Your task to perform on an android device: turn off priority inbox in the gmail app Image 0: 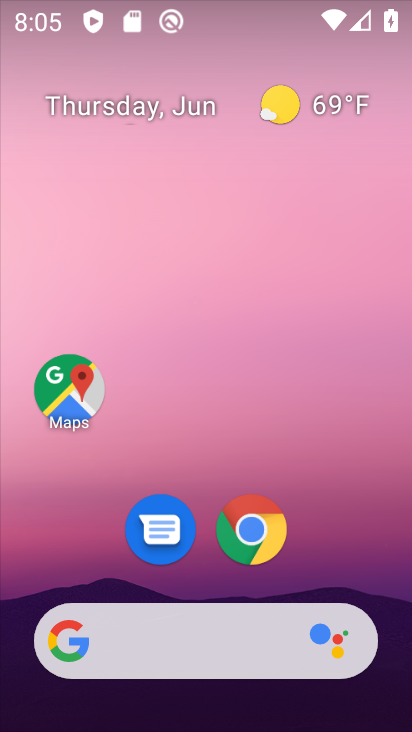
Step 0: drag from (219, 589) to (170, 76)
Your task to perform on an android device: turn off priority inbox in the gmail app Image 1: 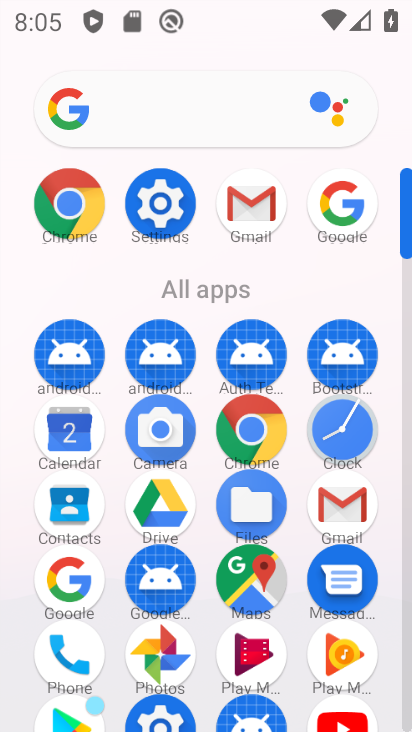
Step 1: click (349, 490)
Your task to perform on an android device: turn off priority inbox in the gmail app Image 2: 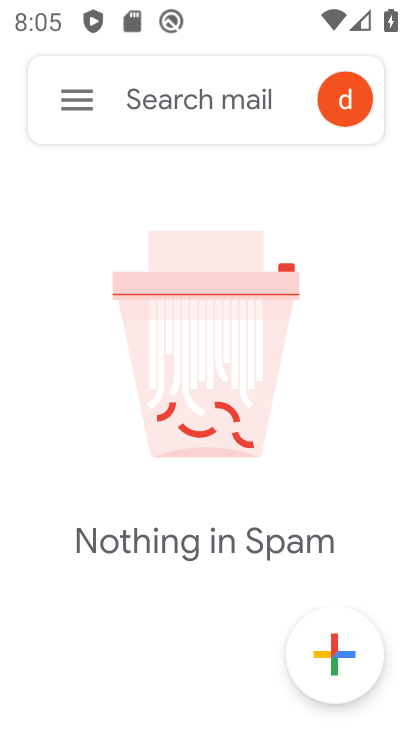
Step 2: click (74, 90)
Your task to perform on an android device: turn off priority inbox in the gmail app Image 3: 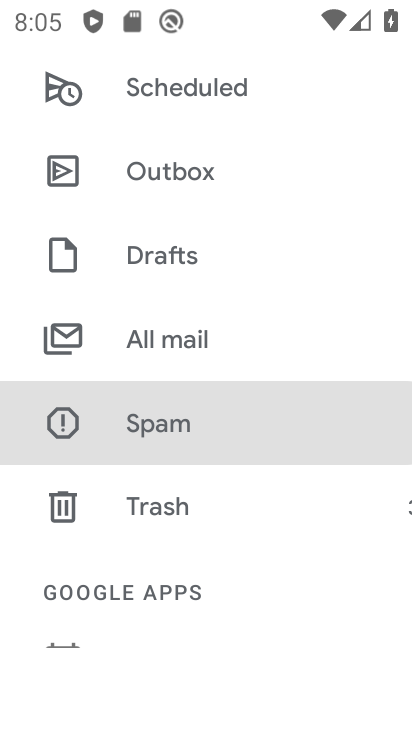
Step 3: drag from (134, 581) to (129, 8)
Your task to perform on an android device: turn off priority inbox in the gmail app Image 4: 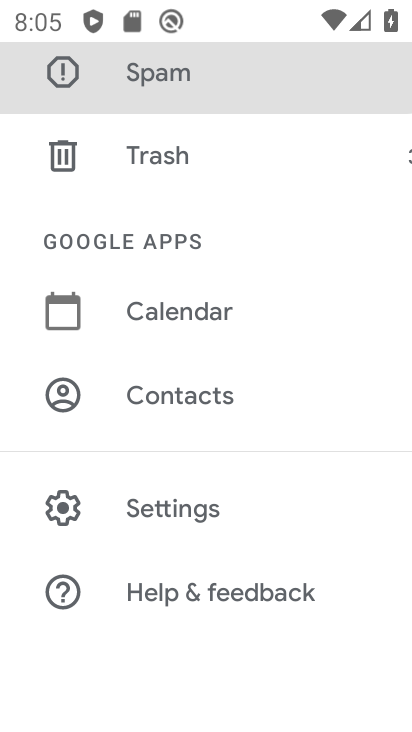
Step 4: click (144, 497)
Your task to perform on an android device: turn off priority inbox in the gmail app Image 5: 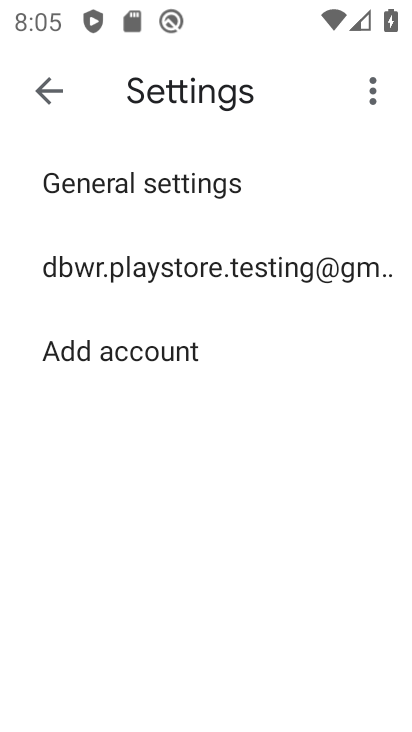
Step 5: click (168, 262)
Your task to perform on an android device: turn off priority inbox in the gmail app Image 6: 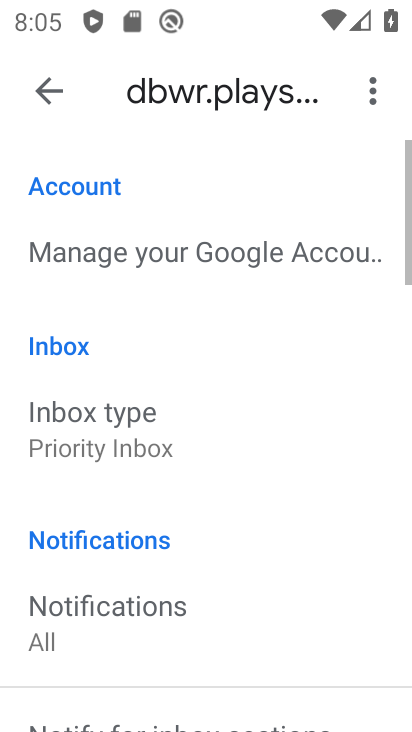
Step 6: click (166, 441)
Your task to perform on an android device: turn off priority inbox in the gmail app Image 7: 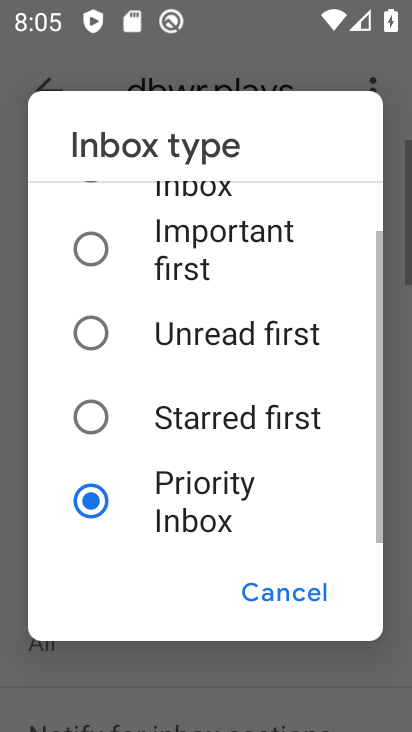
Step 7: click (166, 290)
Your task to perform on an android device: turn off priority inbox in the gmail app Image 8: 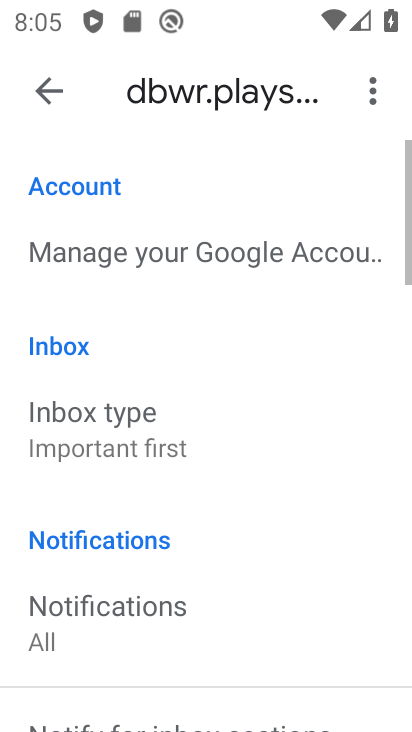
Step 8: task complete